Your task to perform on an android device: turn on translation in the chrome app Image 0: 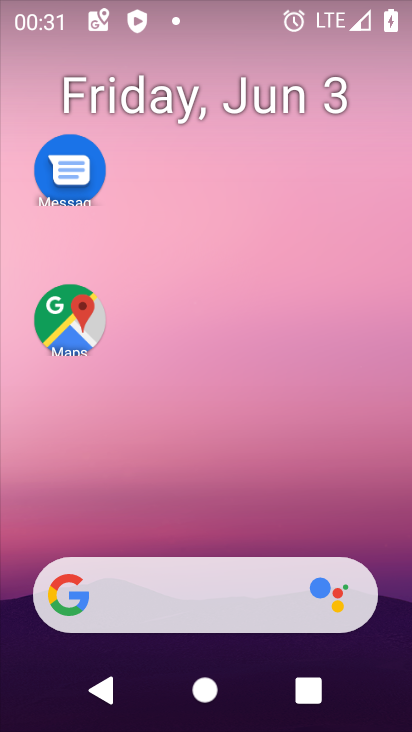
Step 0: press home button
Your task to perform on an android device: turn on translation in the chrome app Image 1: 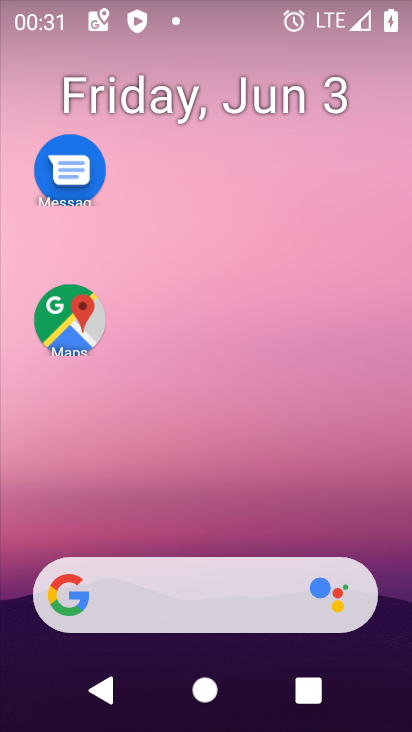
Step 1: drag from (202, 422) to (209, 6)
Your task to perform on an android device: turn on translation in the chrome app Image 2: 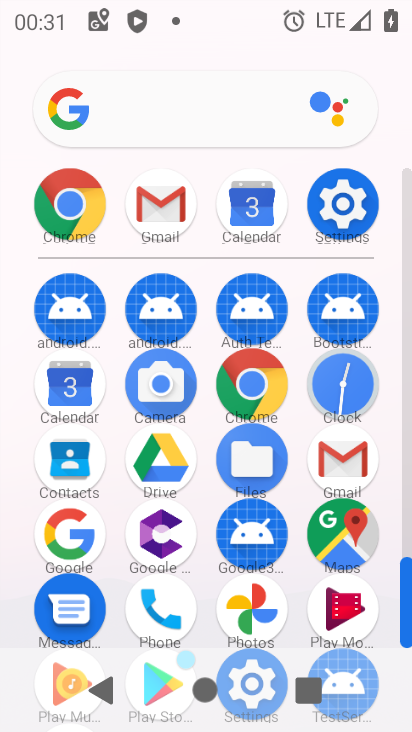
Step 2: click (76, 218)
Your task to perform on an android device: turn on translation in the chrome app Image 3: 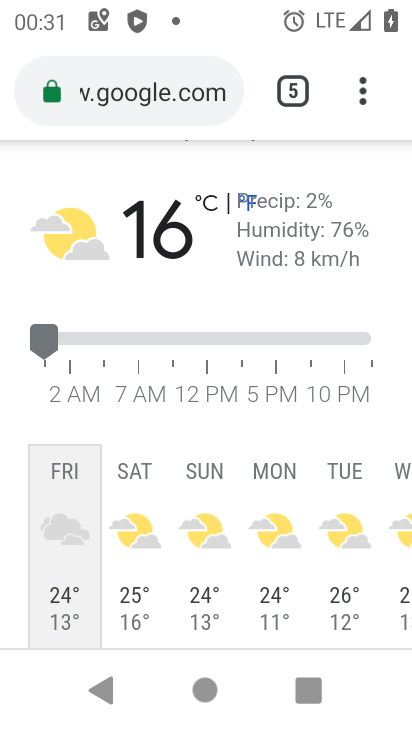
Step 3: click (370, 98)
Your task to perform on an android device: turn on translation in the chrome app Image 4: 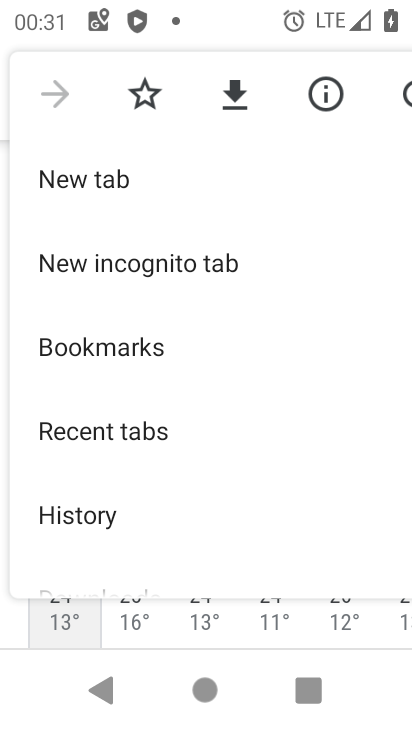
Step 4: drag from (281, 408) to (250, 78)
Your task to perform on an android device: turn on translation in the chrome app Image 5: 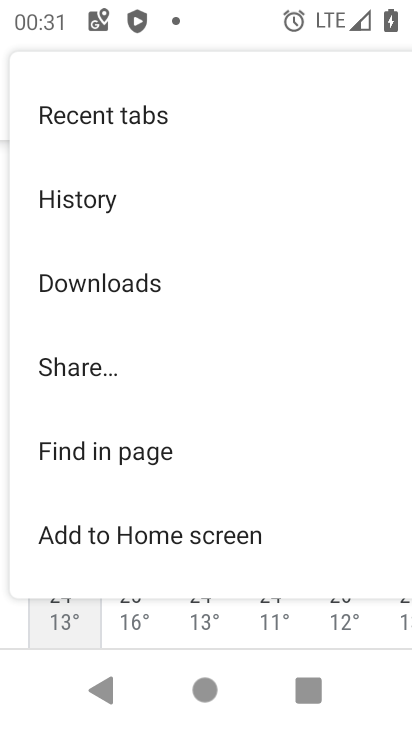
Step 5: drag from (188, 553) to (206, 97)
Your task to perform on an android device: turn on translation in the chrome app Image 6: 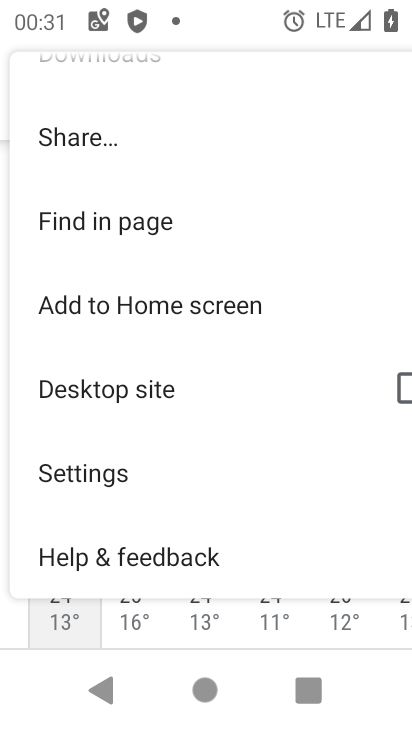
Step 6: click (118, 468)
Your task to perform on an android device: turn on translation in the chrome app Image 7: 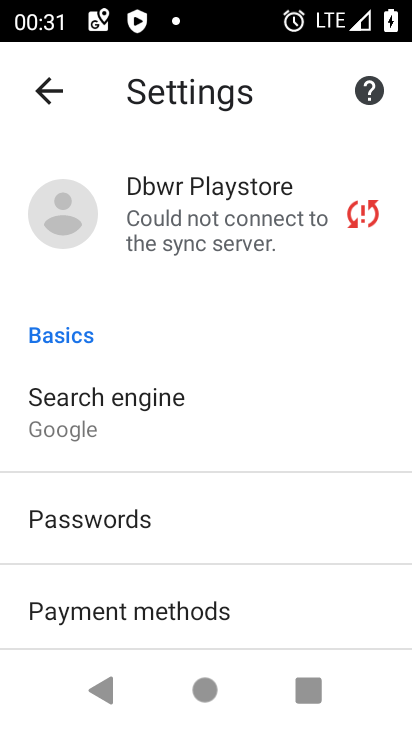
Step 7: drag from (143, 535) to (132, 37)
Your task to perform on an android device: turn on translation in the chrome app Image 8: 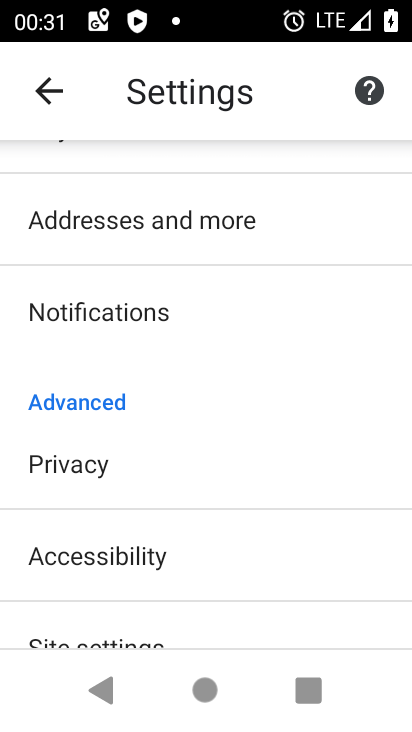
Step 8: drag from (197, 540) to (150, 148)
Your task to perform on an android device: turn on translation in the chrome app Image 9: 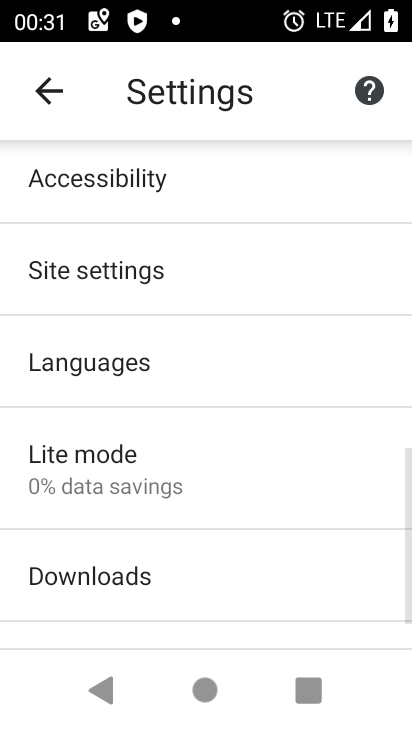
Step 9: click (295, 498)
Your task to perform on an android device: turn on translation in the chrome app Image 10: 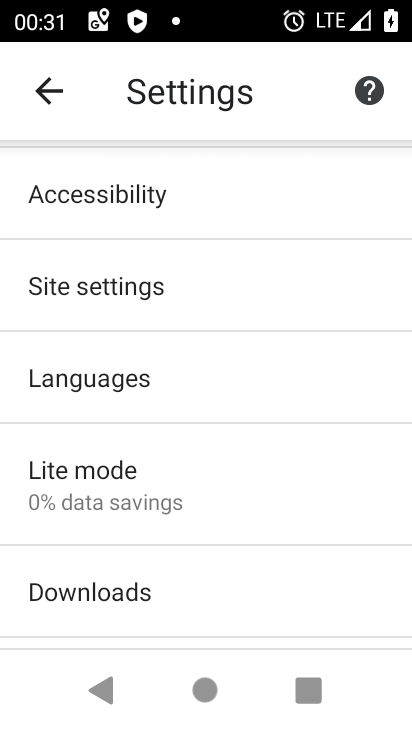
Step 10: click (249, 338)
Your task to perform on an android device: turn on translation in the chrome app Image 11: 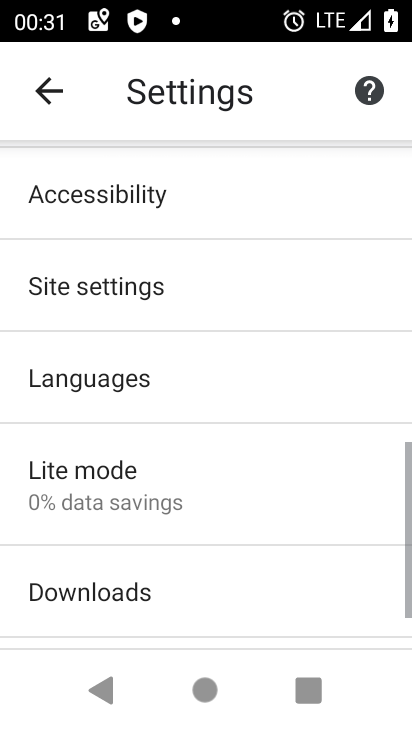
Step 11: task complete